Your task to perform on an android device: turn on data saver in the chrome app Image 0: 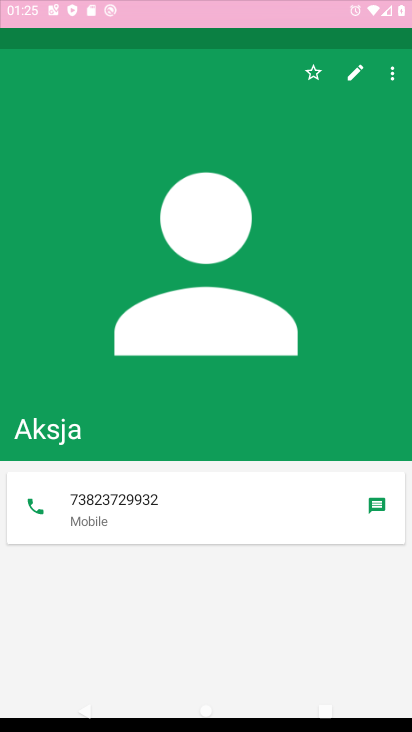
Step 0: click (238, 48)
Your task to perform on an android device: turn on data saver in the chrome app Image 1: 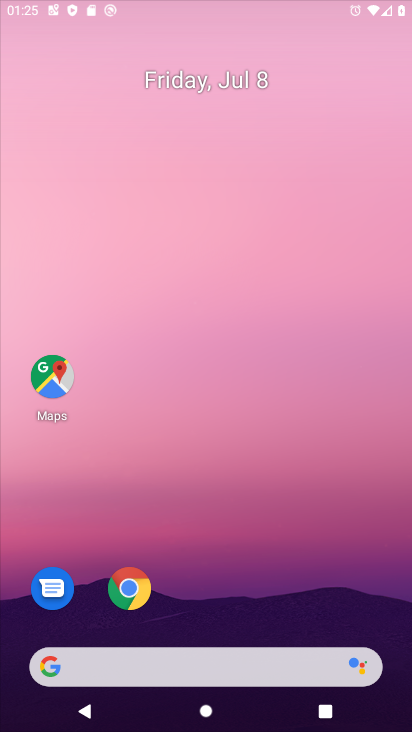
Step 1: drag from (233, 586) to (305, 143)
Your task to perform on an android device: turn on data saver in the chrome app Image 2: 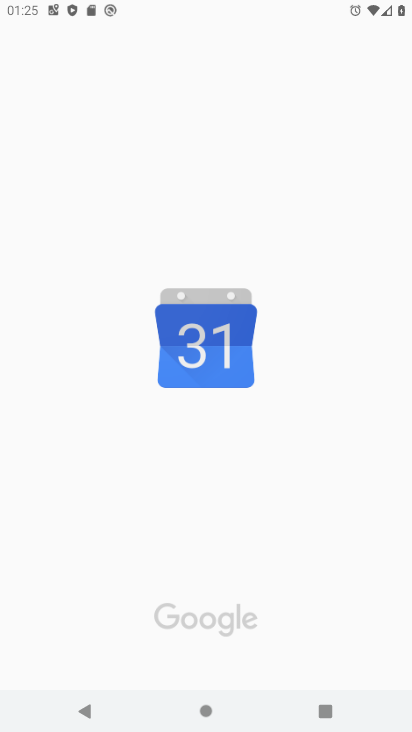
Step 2: press home button
Your task to perform on an android device: turn on data saver in the chrome app Image 3: 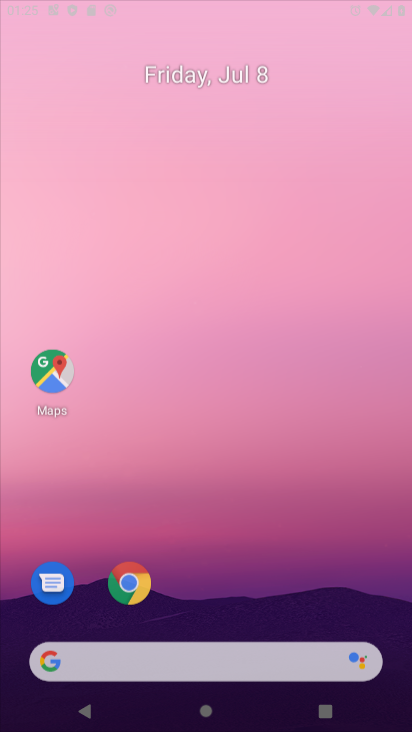
Step 3: drag from (192, 607) to (235, 135)
Your task to perform on an android device: turn on data saver in the chrome app Image 4: 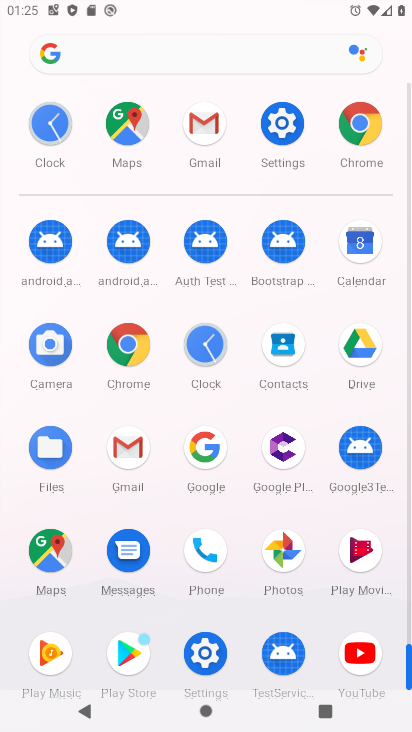
Step 4: click (357, 121)
Your task to perform on an android device: turn on data saver in the chrome app Image 5: 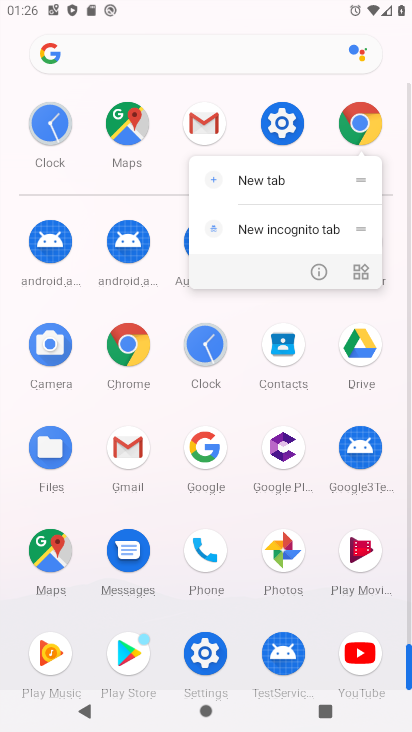
Step 5: click (324, 272)
Your task to perform on an android device: turn on data saver in the chrome app Image 6: 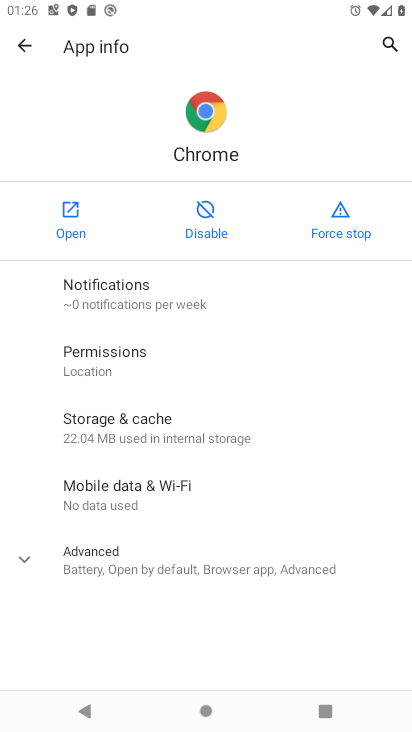
Step 6: click (66, 228)
Your task to perform on an android device: turn on data saver in the chrome app Image 7: 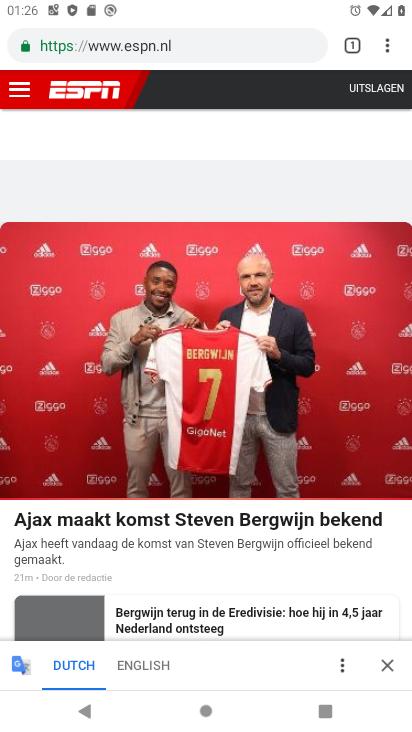
Step 7: click (389, 38)
Your task to perform on an android device: turn on data saver in the chrome app Image 8: 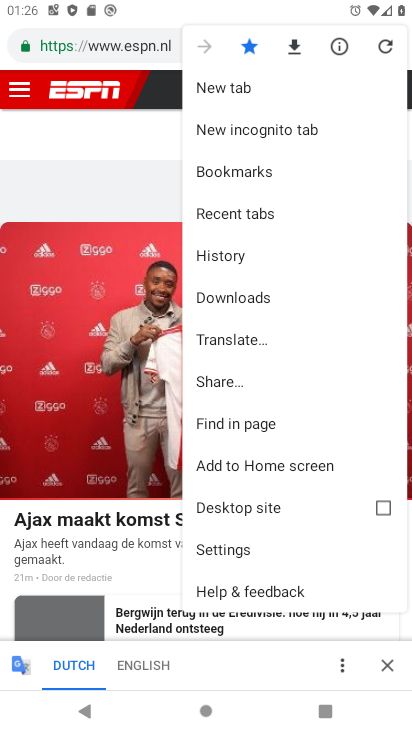
Step 8: click (213, 552)
Your task to perform on an android device: turn on data saver in the chrome app Image 9: 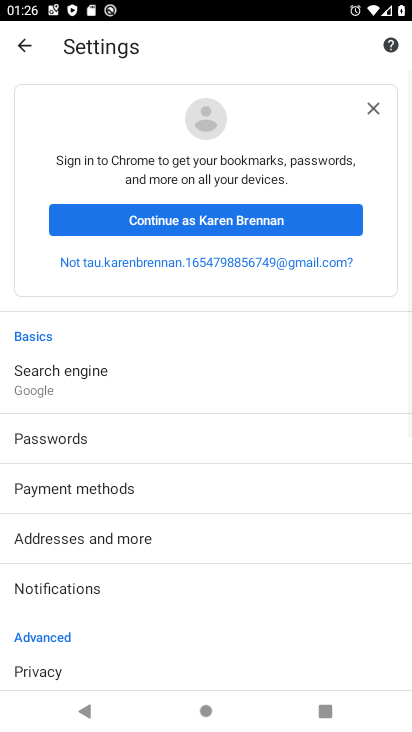
Step 9: drag from (154, 556) to (192, 115)
Your task to perform on an android device: turn on data saver in the chrome app Image 10: 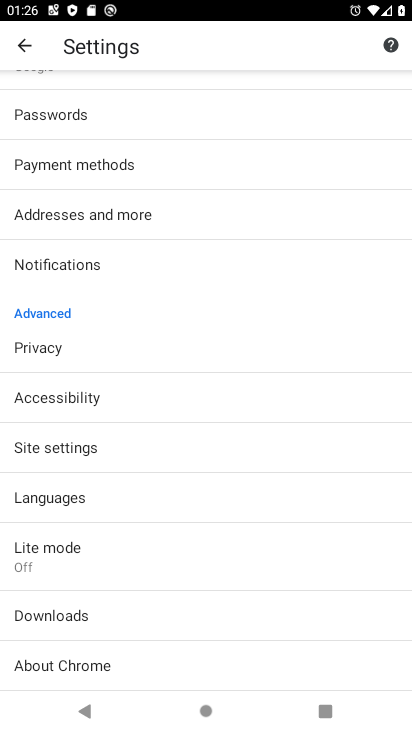
Step 10: drag from (122, 591) to (151, 282)
Your task to perform on an android device: turn on data saver in the chrome app Image 11: 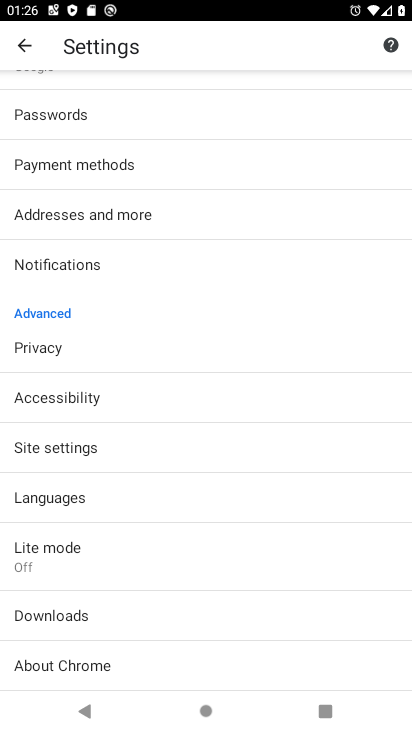
Step 11: click (73, 548)
Your task to perform on an android device: turn on data saver in the chrome app Image 12: 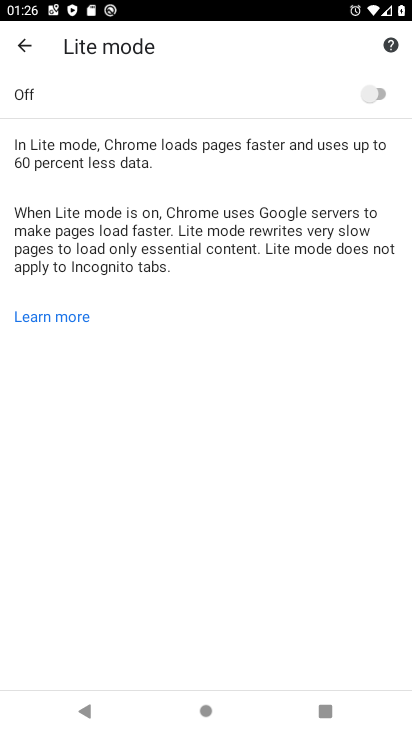
Step 12: click (371, 92)
Your task to perform on an android device: turn on data saver in the chrome app Image 13: 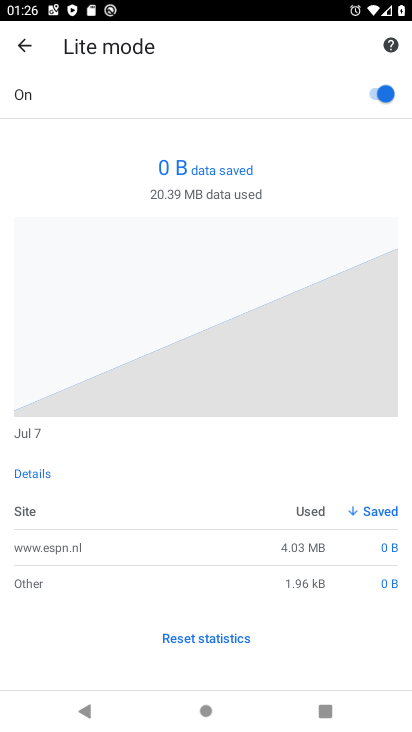
Step 13: click (371, 93)
Your task to perform on an android device: turn on data saver in the chrome app Image 14: 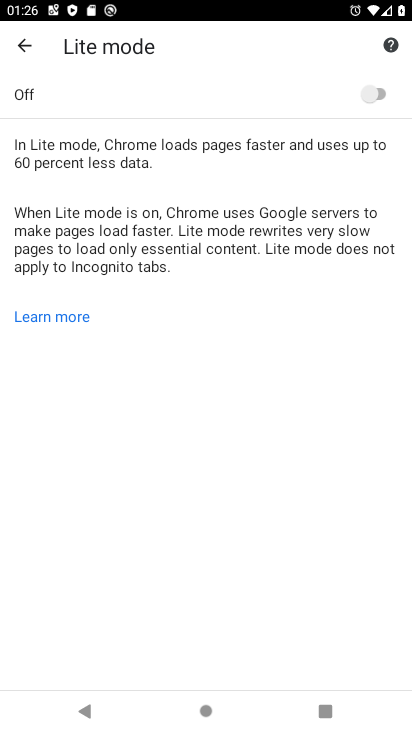
Step 14: click (371, 93)
Your task to perform on an android device: turn on data saver in the chrome app Image 15: 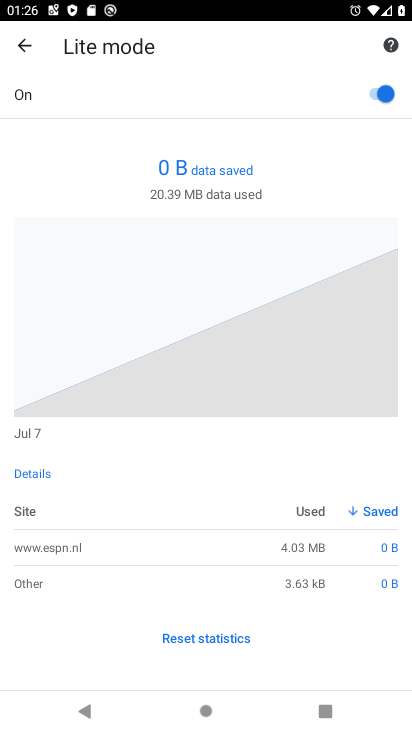
Step 15: task complete